Your task to perform on an android device: open app "ZOOM Cloud Meetings" (install if not already installed) Image 0: 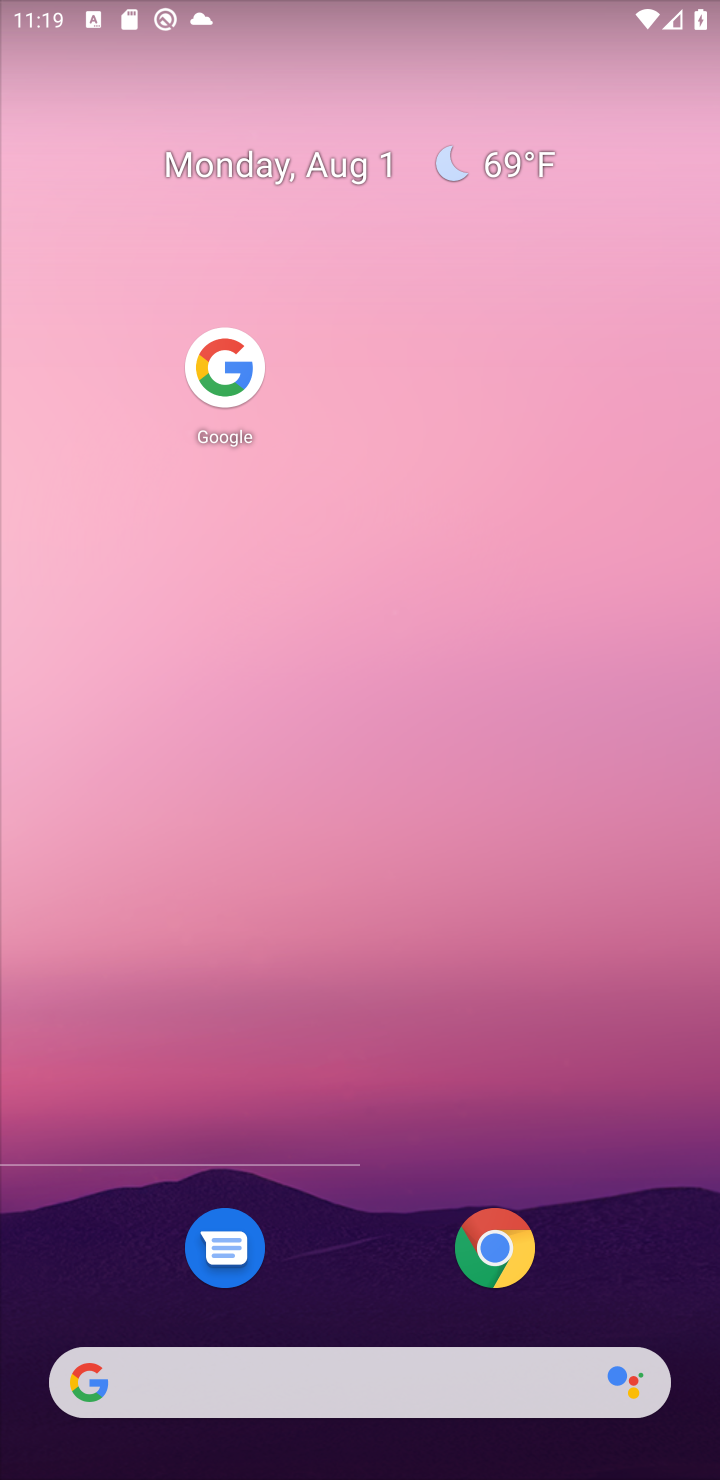
Step 0: drag from (348, 1192) to (481, 354)
Your task to perform on an android device: open app "ZOOM Cloud Meetings" (install if not already installed) Image 1: 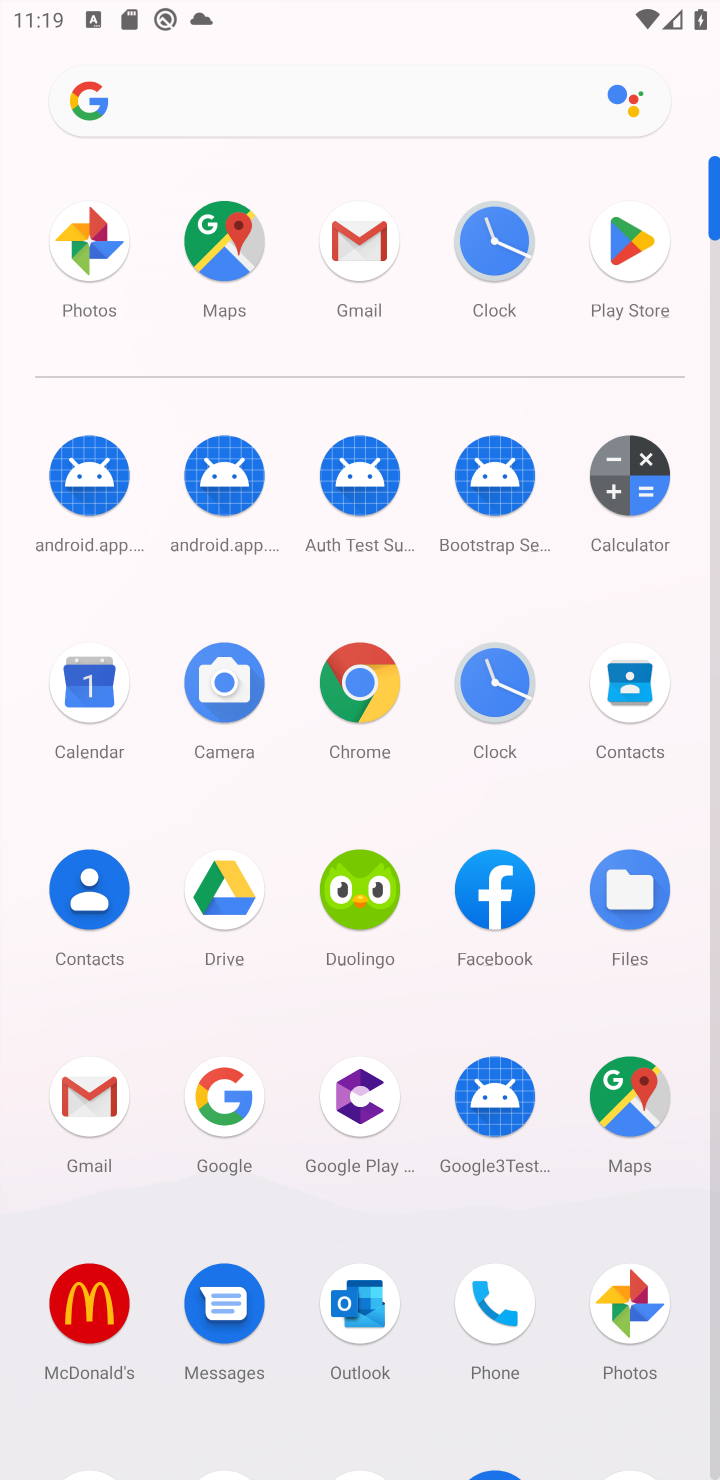
Step 1: drag from (273, 1235) to (350, 451)
Your task to perform on an android device: open app "ZOOM Cloud Meetings" (install if not already installed) Image 2: 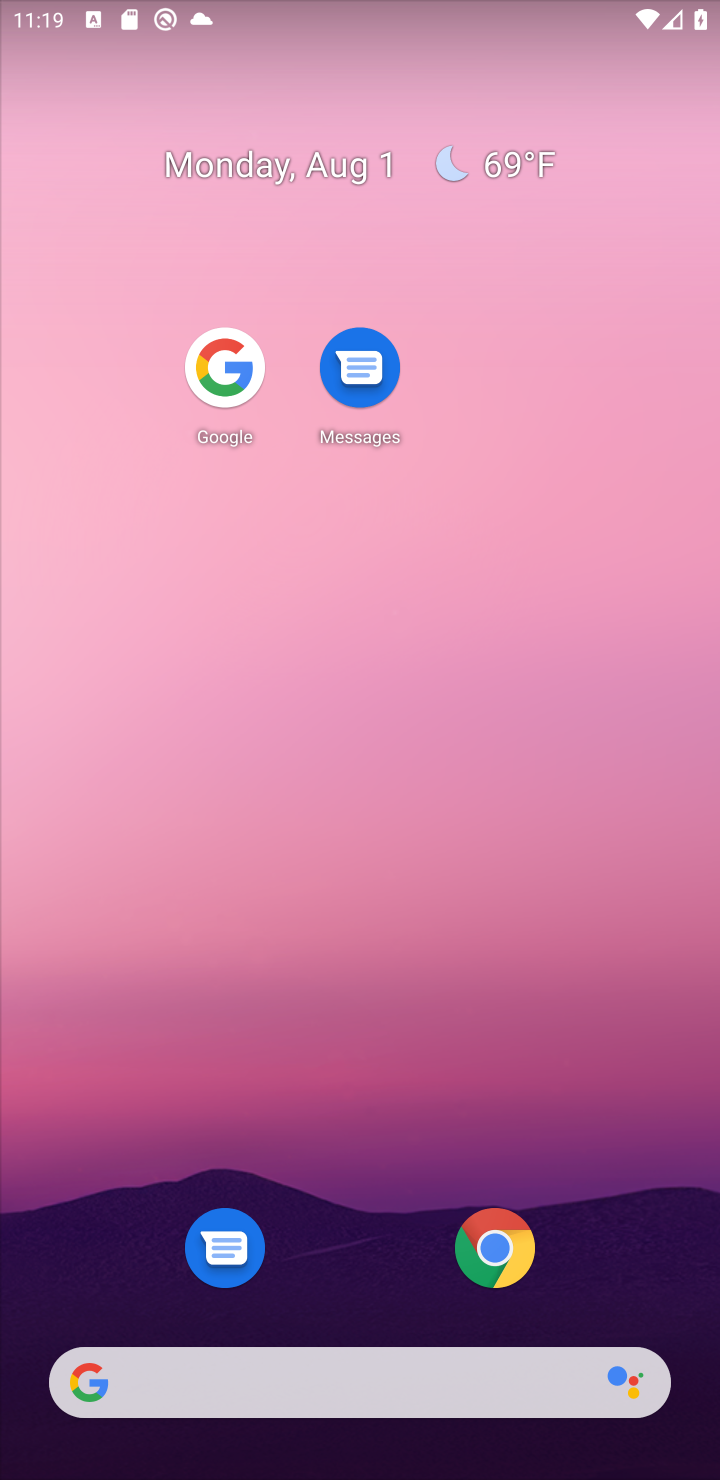
Step 2: drag from (545, 771) to (577, 107)
Your task to perform on an android device: open app "ZOOM Cloud Meetings" (install if not already installed) Image 3: 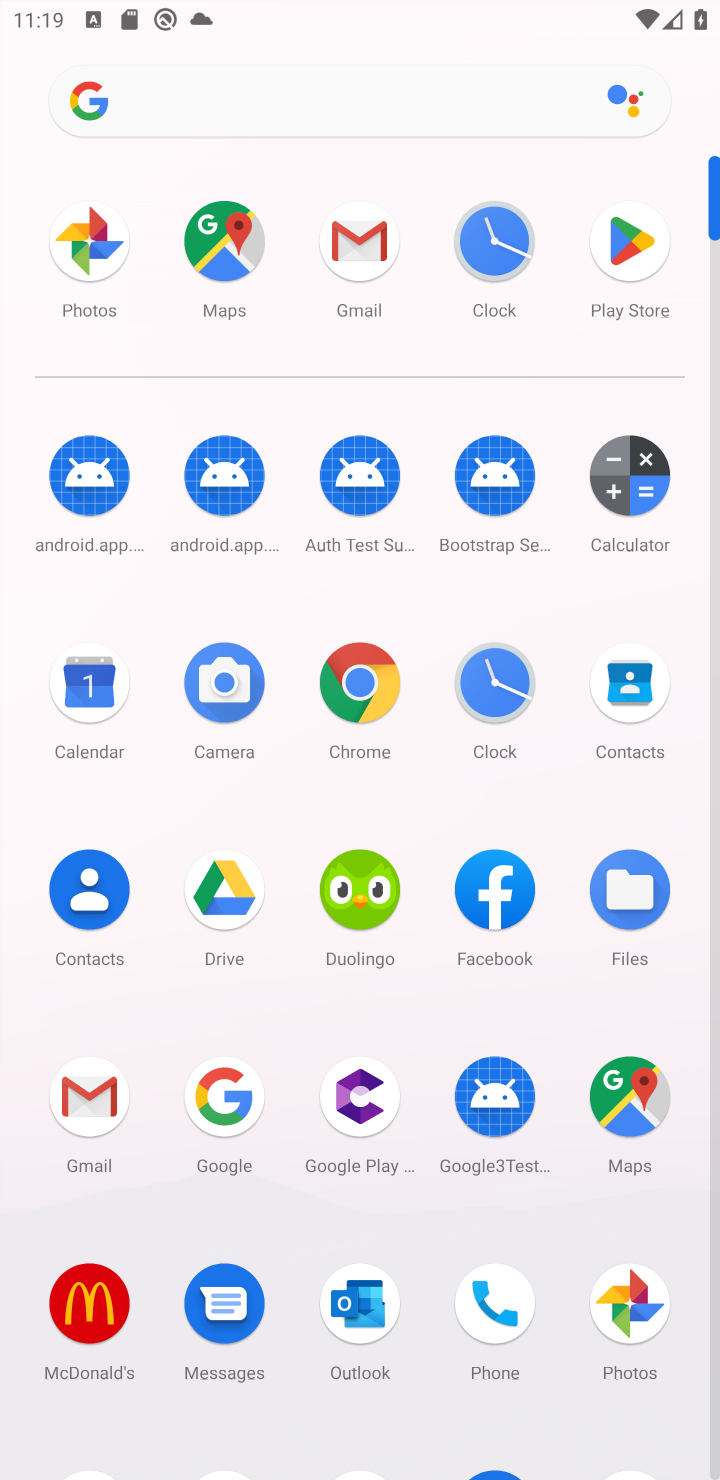
Step 3: drag from (319, 1234) to (407, 470)
Your task to perform on an android device: open app "ZOOM Cloud Meetings" (install if not already installed) Image 4: 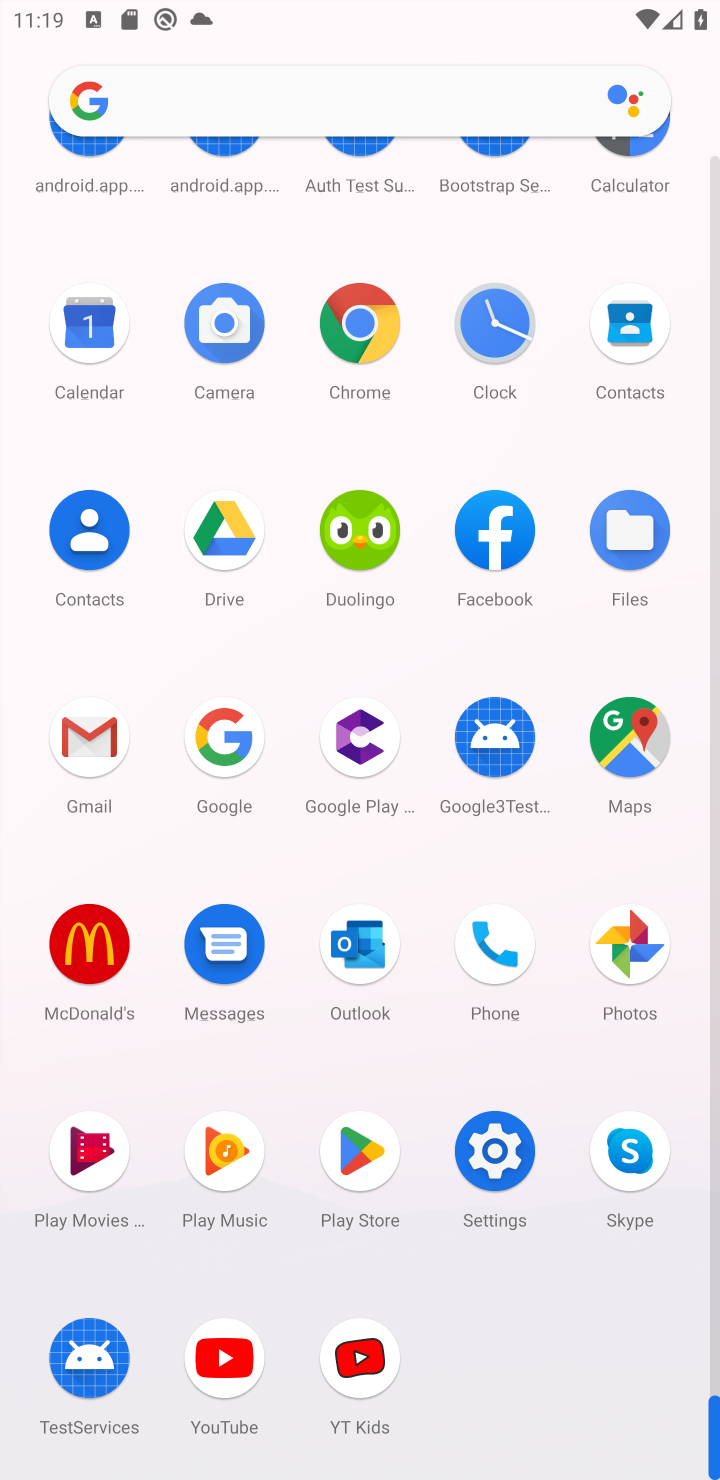
Step 4: click (366, 1127)
Your task to perform on an android device: open app "ZOOM Cloud Meetings" (install if not already installed) Image 5: 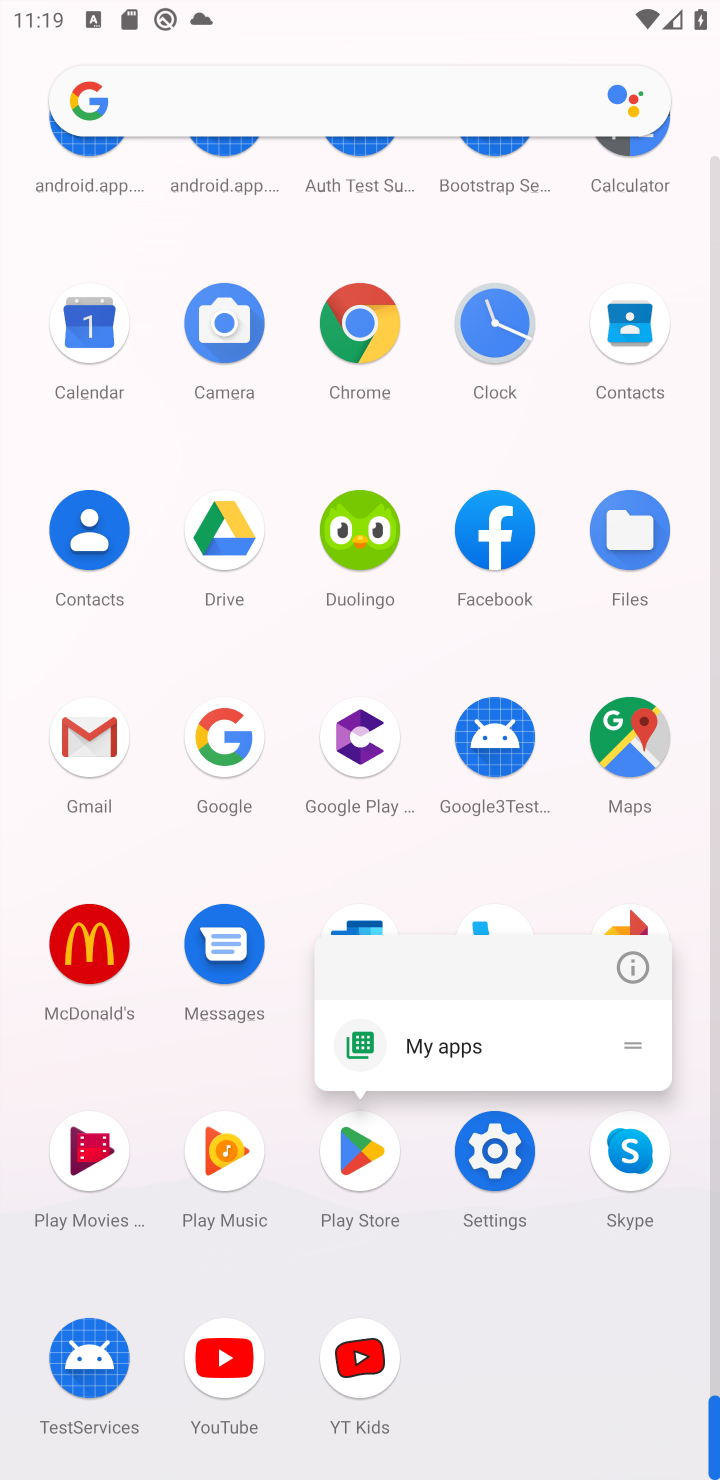
Step 5: click (331, 1160)
Your task to perform on an android device: open app "ZOOM Cloud Meetings" (install if not already installed) Image 6: 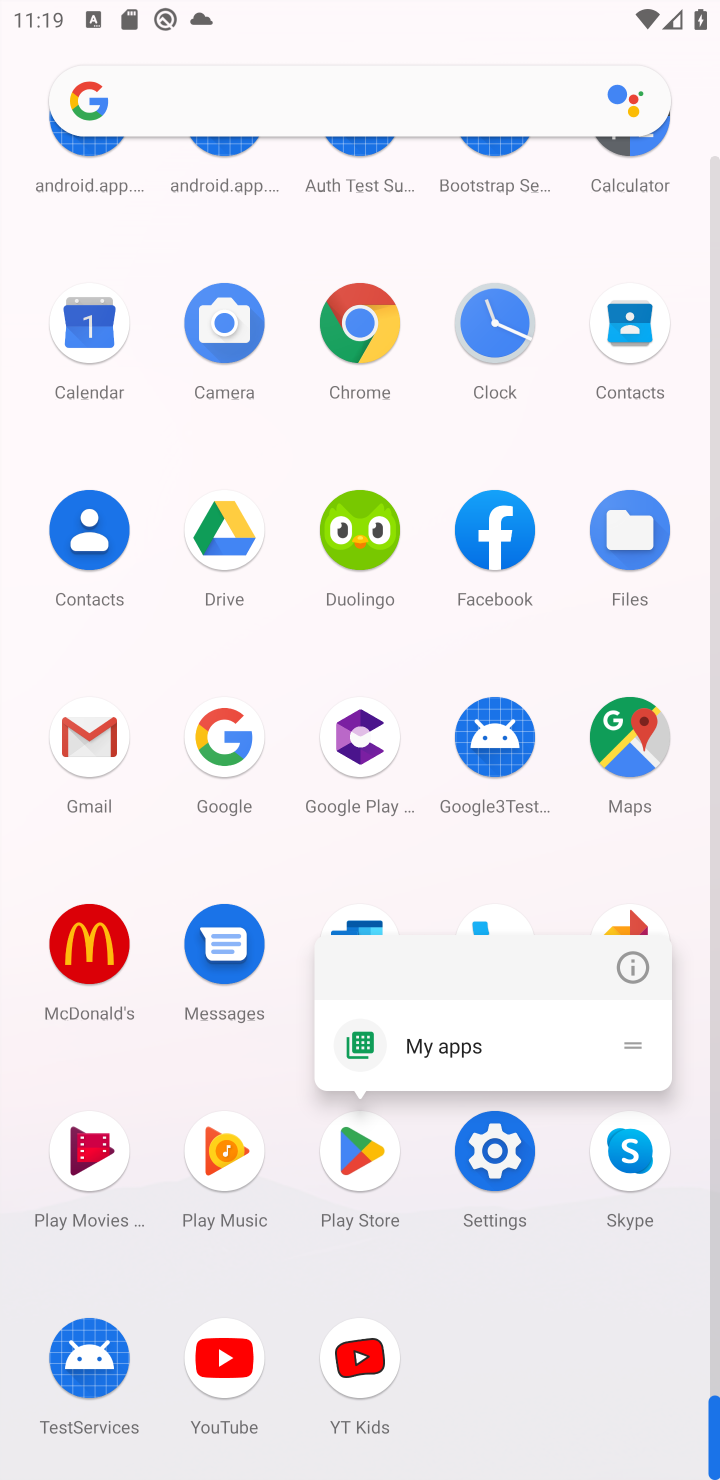
Step 6: click (356, 1152)
Your task to perform on an android device: open app "ZOOM Cloud Meetings" (install if not already installed) Image 7: 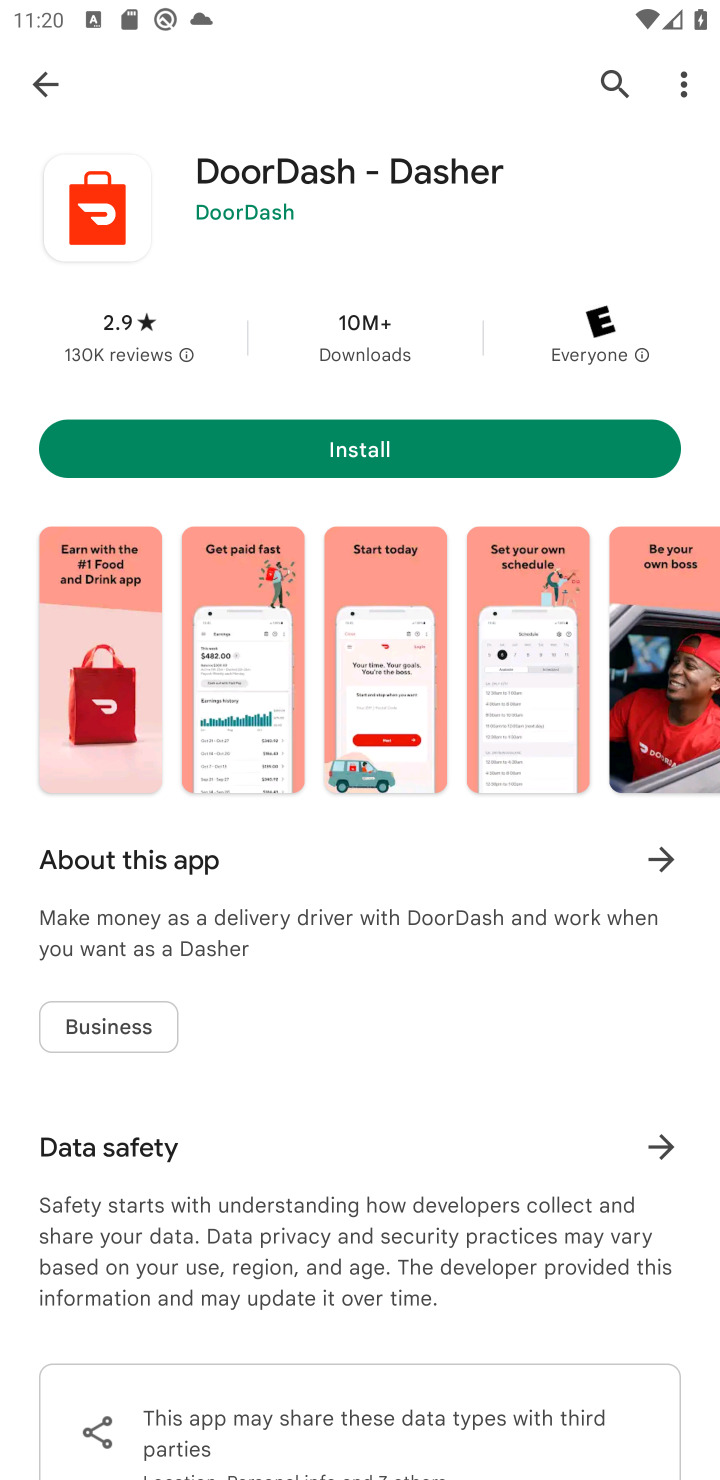
Step 7: click (601, 83)
Your task to perform on an android device: open app "ZOOM Cloud Meetings" (install if not already installed) Image 8: 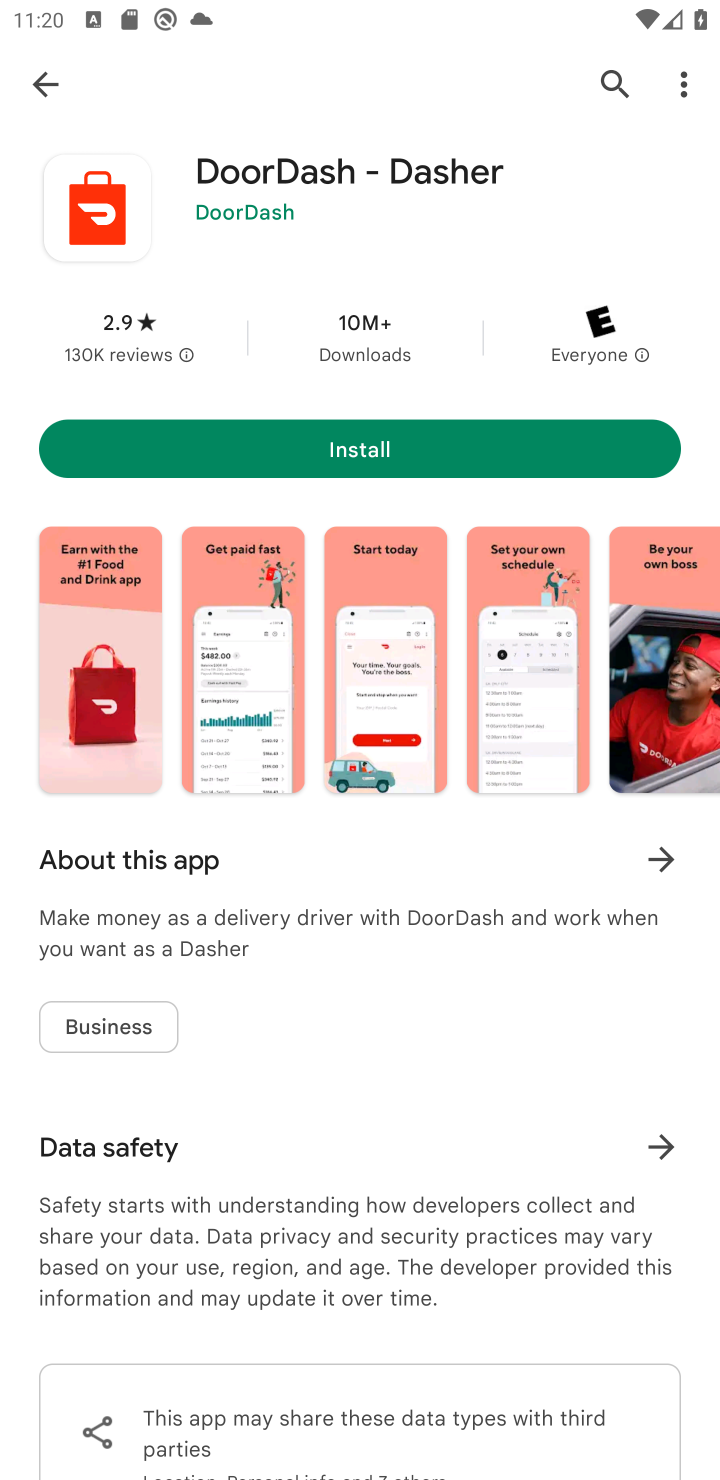
Step 8: click (613, 70)
Your task to perform on an android device: open app "ZOOM Cloud Meetings" (install if not already installed) Image 9: 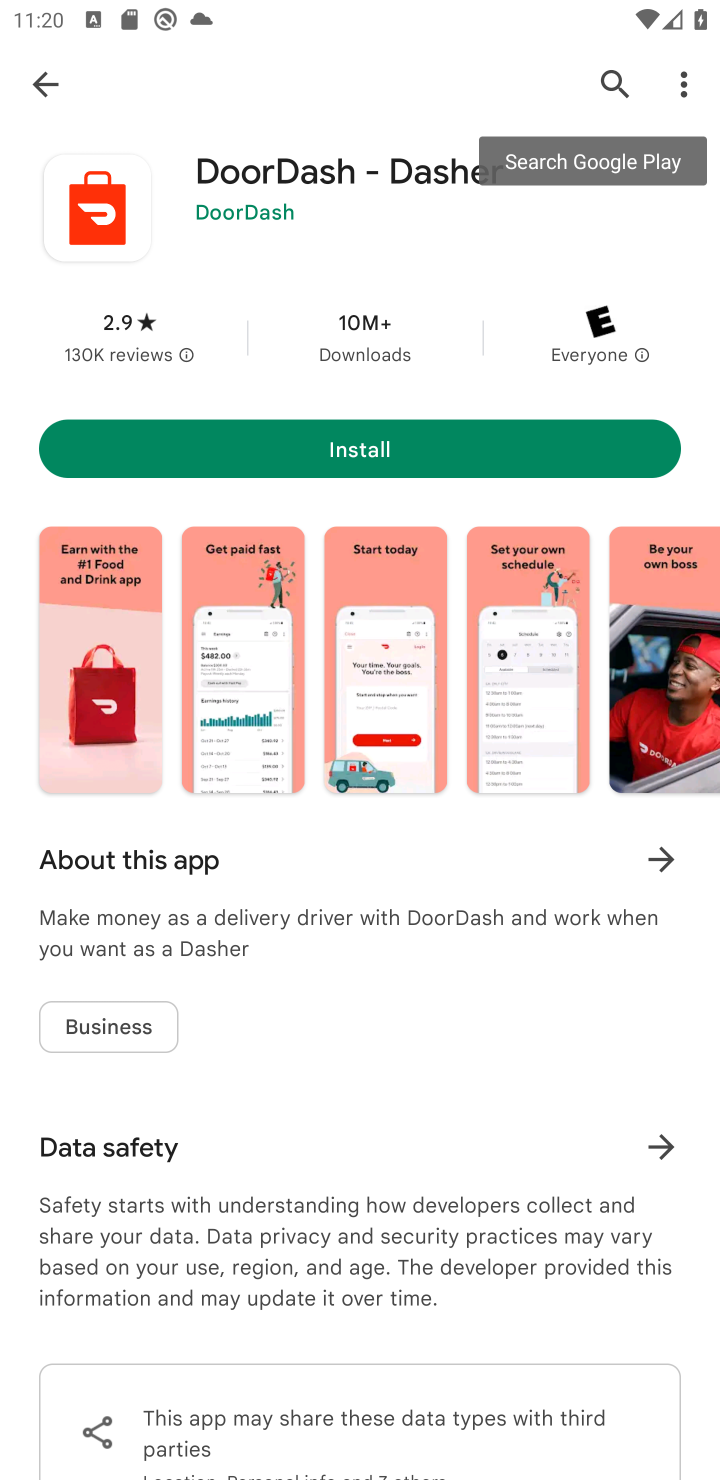
Step 9: click (621, 78)
Your task to perform on an android device: open app "ZOOM Cloud Meetings" (install if not already installed) Image 10: 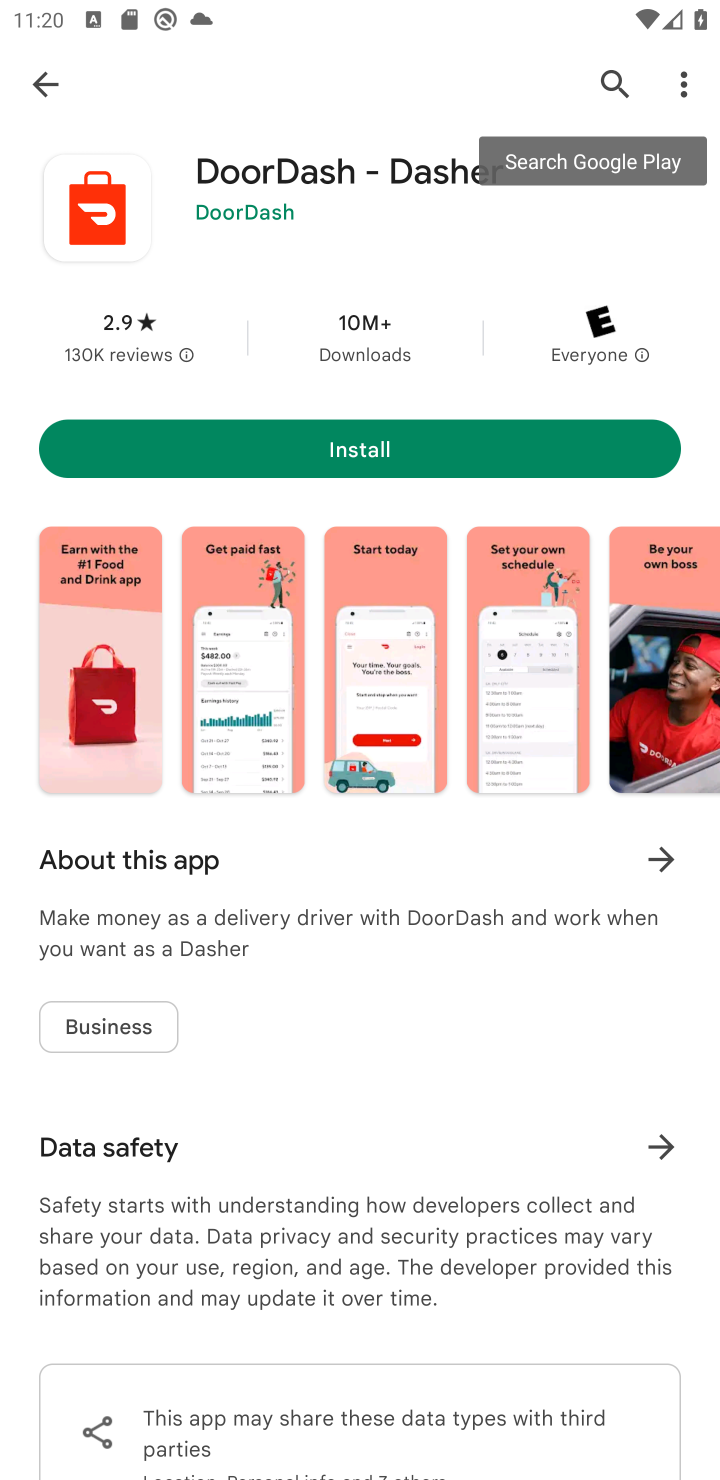
Step 10: click (617, 79)
Your task to perform on an android device: open app "ZOOM Cloud Meetings" (install if not already installed) Image 11: 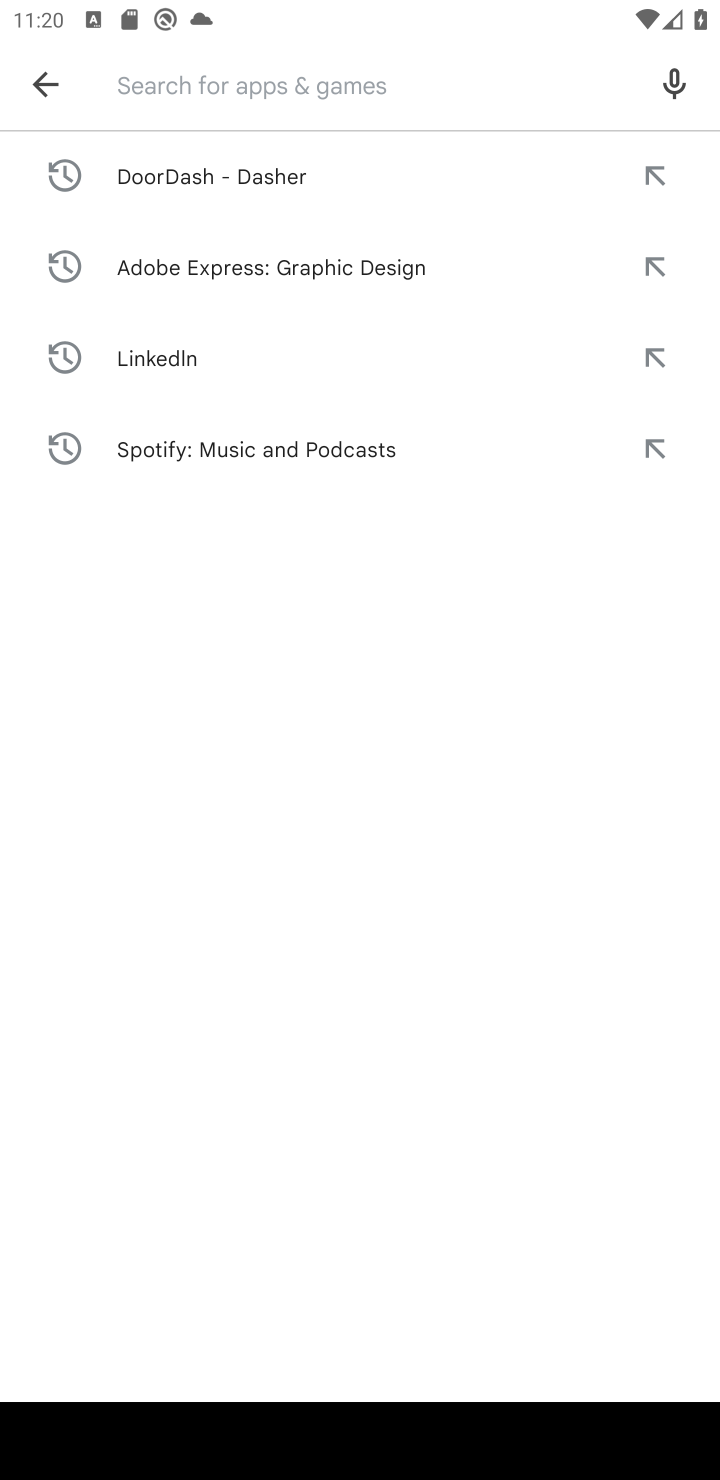
Step 11: type "Zoom Cloud Meetings"
Your task to perform on an android device: open app "ZOOM Cloud Meetings" (install if not already installed) Image 12: 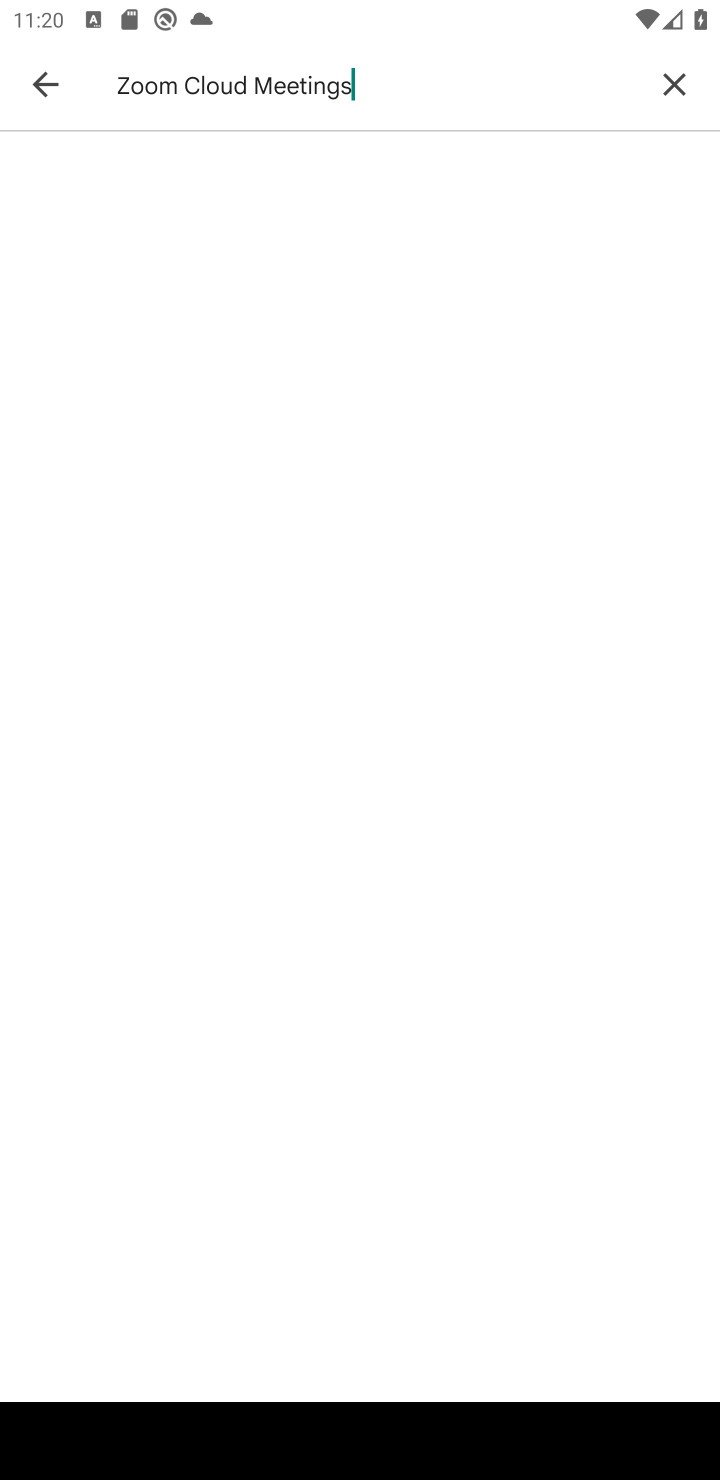
Step 12: press enter
Your task to perform on an android device: open app "ZOOM Cloud Meetings" (install if not already installed) Image 13: 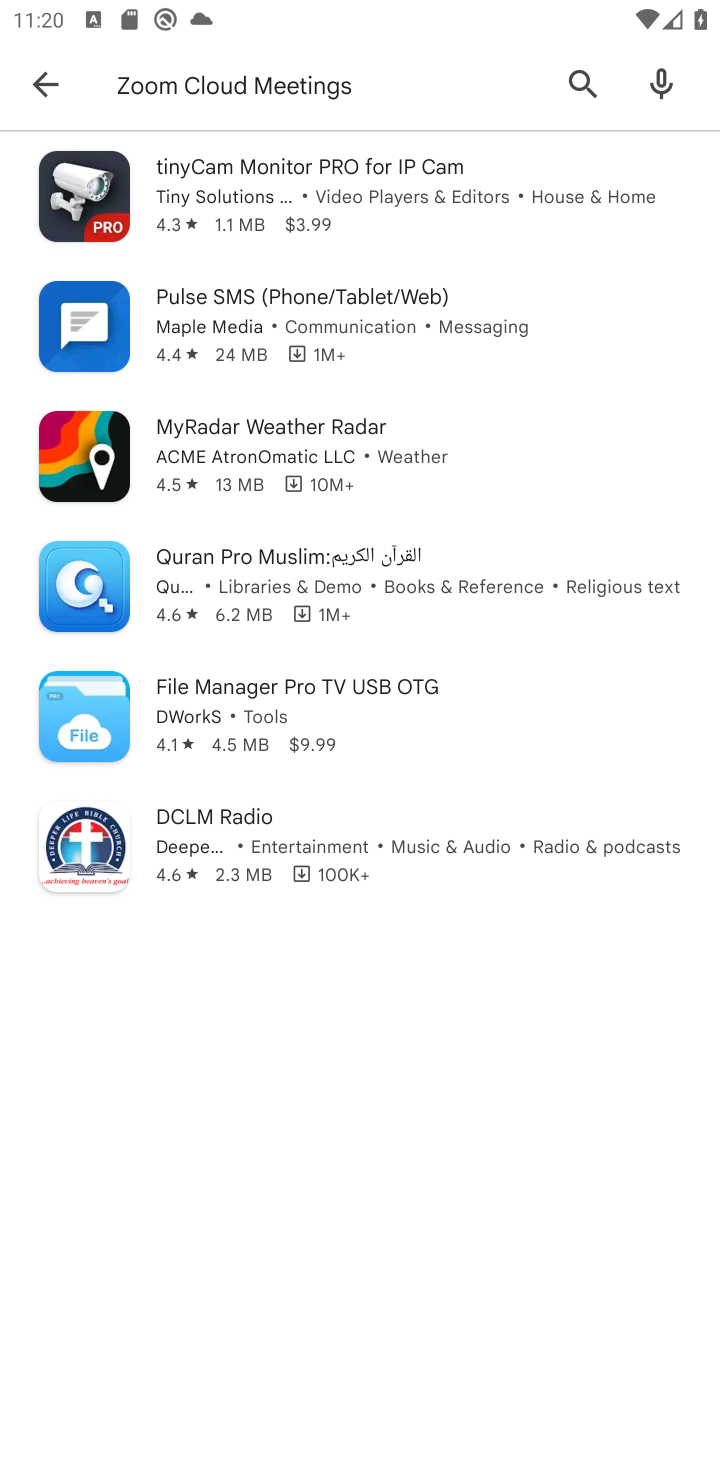
Step 13: task complete